Your task to perform on an android device: Open Google Chrome and click the shortcut for Amazon.com Image 0: 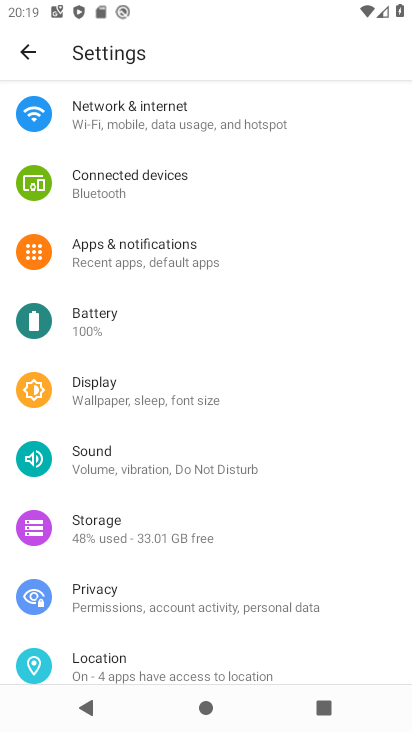
Step 0: press home button
Your task to perform on an android device: Open Google Chrome and click the shortcut for Amazon.com Image 1: 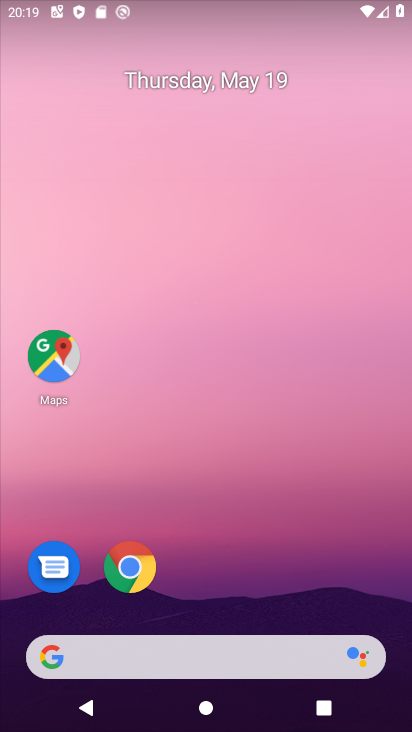
Step 1: click (139, 566)
Your task to perform on an android device: Open Google Chrome and click the shortcut for Amazon.com Image 2: 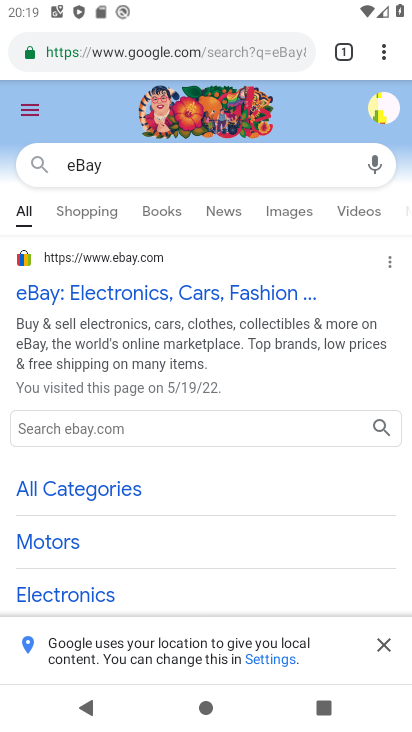
Step 2: click (381, 50)
Your task to perform on an android device: Open Google Chrome and click the shortcut for Amazon.com Image 3: 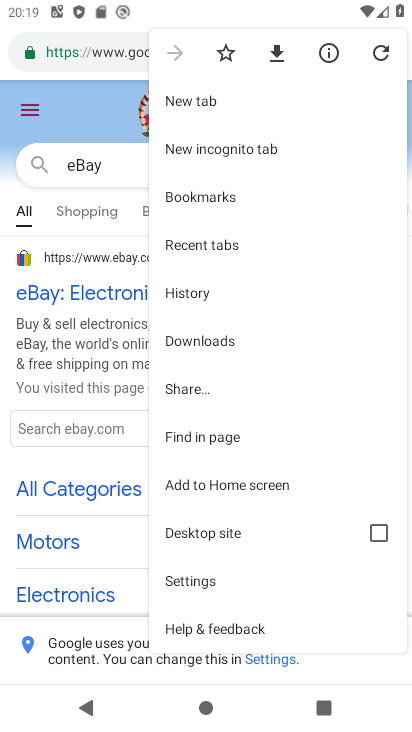
Step 3: click (206, 97)
Your task to perform on an android device: Open Google Chrome and click the shortcut for Amazon.com Image 4: 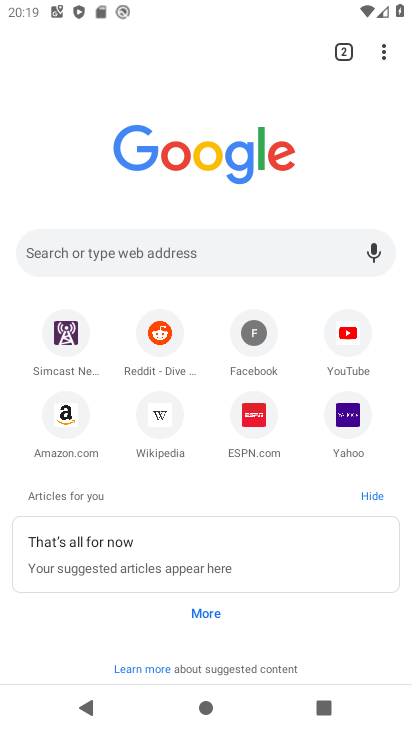
Step 4: click (70, 418)
Your task to perform on an android device: Open Google Chrome and click the shortcut for Amazon.com Image 5: 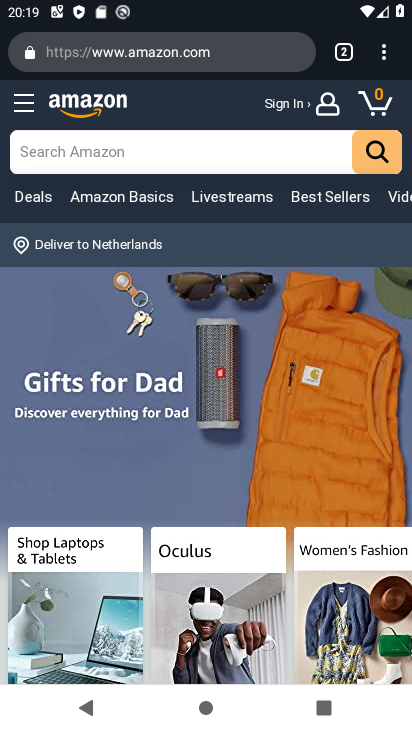
Step 5: task complete